Your task to perform on an android device: Open the phone app and click the voicemail tab. Image 0: 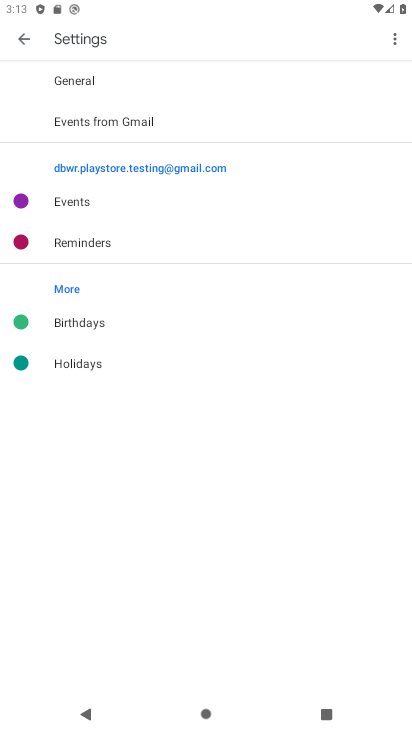
Step 0: press home button
Your task to perform on an android device: Open the phone app and click the voicemail tab. Image 1: 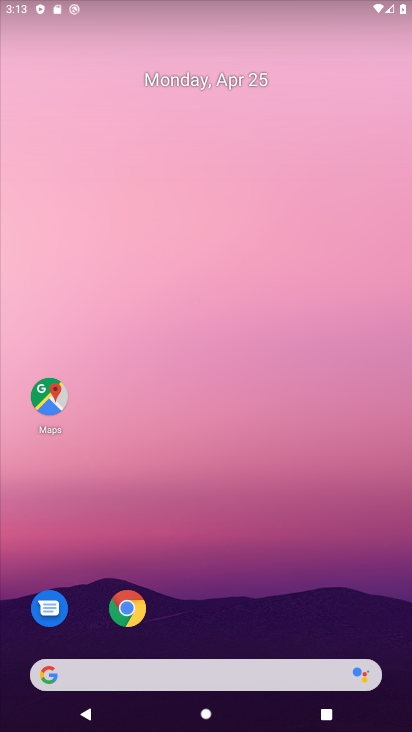
Step 1: drag from (234, 637) to (267, 134)
Your task to perform on an android device: Open the phone app and click the voicemail tab. Image 2: 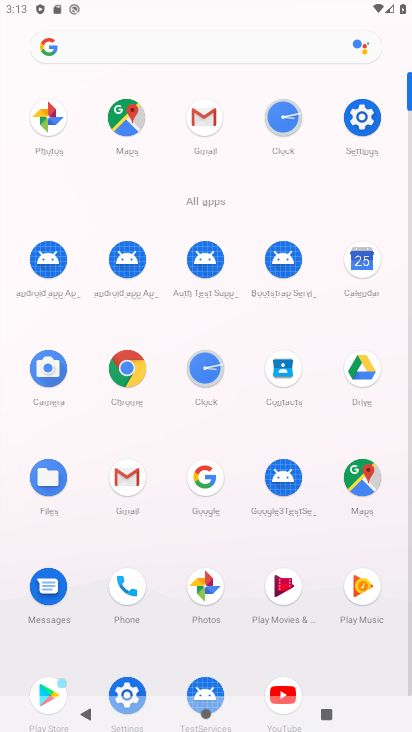
Step 2: click (132, 588)
Your task to perform on an android device: Open the phone app and click the voicemail tab. Image 3: 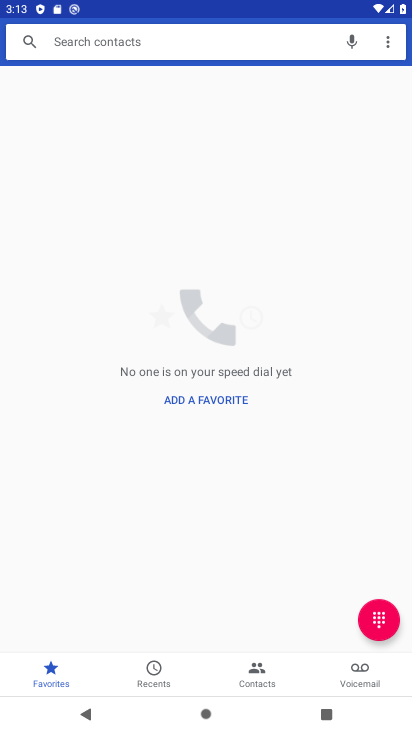
Step 3: click (371, 684)
Your task to perform on an android device: Open the phone app and click the voicemail tab. Image 4: 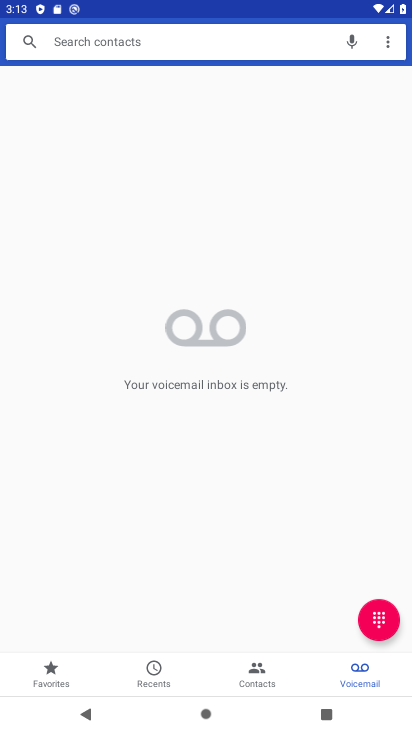
Step 4: task complete